Your task to perform on an android device: change alarm snooze length Image 0: 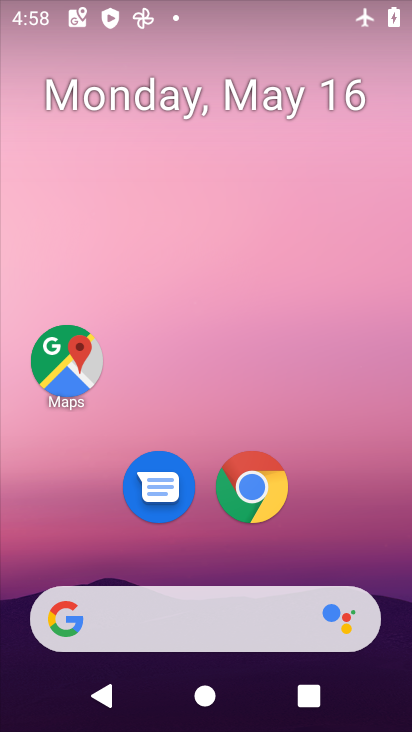
Step 0: drag from (406, 634) to (329, 138)
Your task to perform on an android device: change alarm snooze length Image 1: 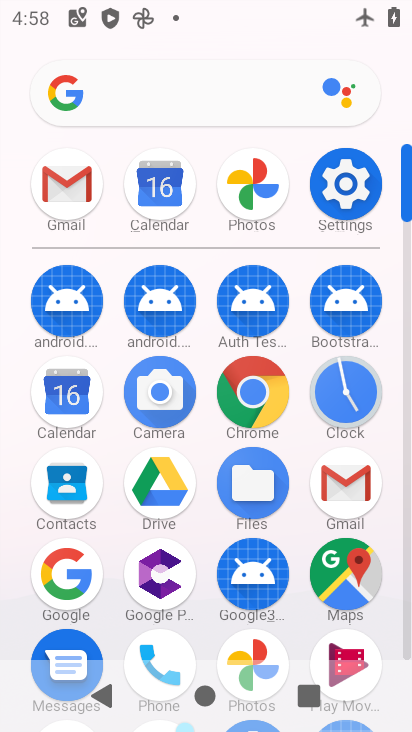
Step 1: click (408, 644)
Your task to perform on an android device: change alarm snooze length Image 2: 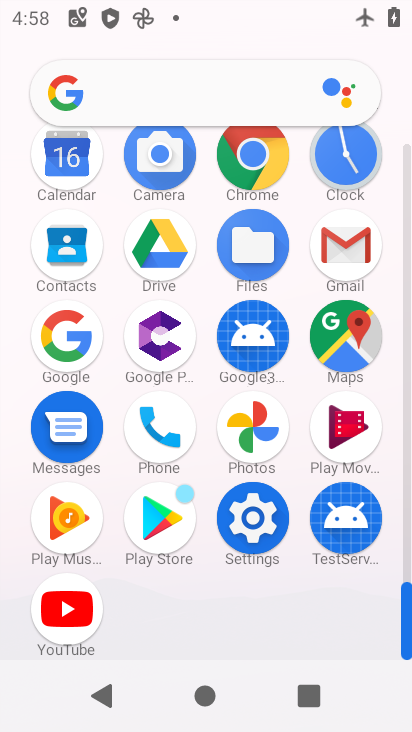
Step 2: click (347, 151)
Your task to perform on an android device: change alarm snooze length Image 3: 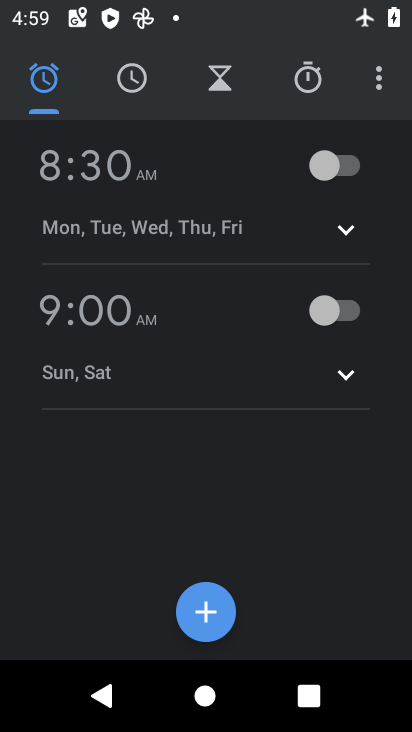
Step 3: click (378, 86)
Your task to perform on an android device: change alarm snooze length Image 4: 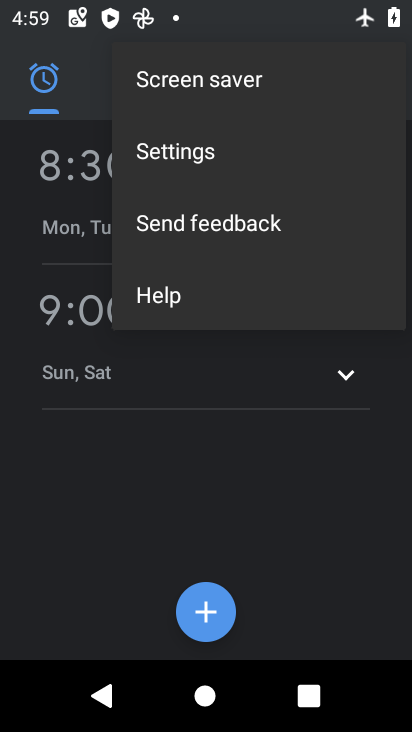
Step 4: click (166, 157)
Your task to perform on an android device: change alarm snooze length Image 5: 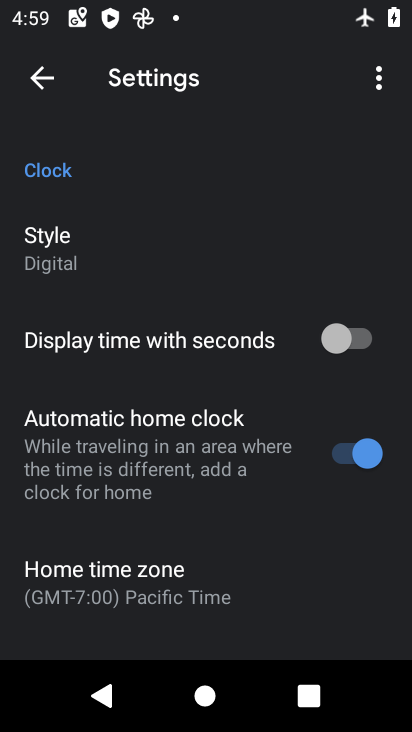
Step 5: drag from (241, 556) to (298, 230)
Your task to perform on an android device: change alarm snooze length Image 6: 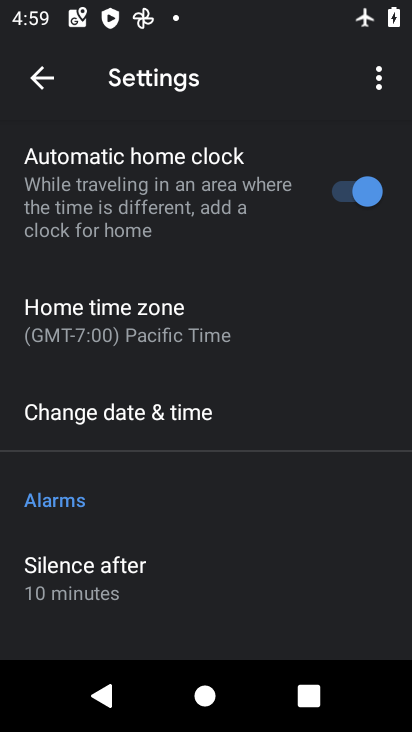
Step 6: drag from (268, 600) to (245, 251)
Your task to perform on an android device: change alarm snooze length Image 7: 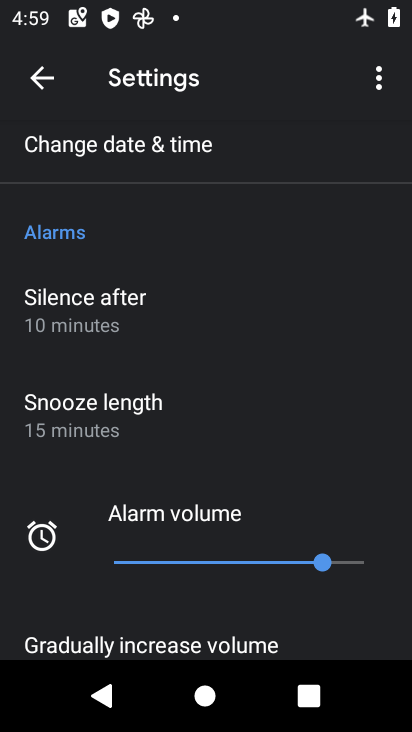
Step 7: click (71, 385)
Your task to perform on an android device: change alarm snooze length Image 8: 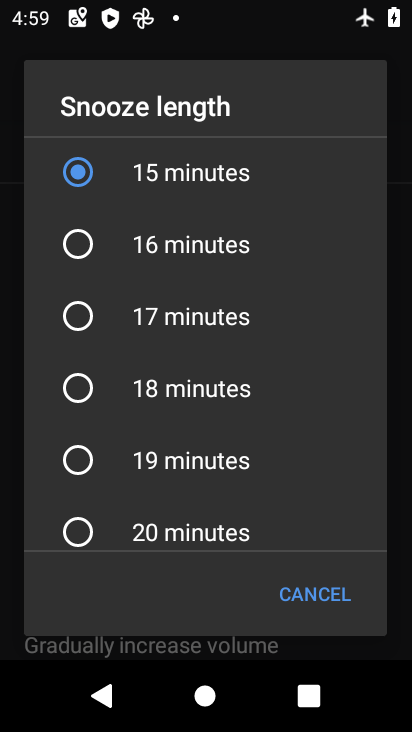
Step 8: drag from (145, 258) to (139, 537)
Your task to perform on an android device: change alarm snooze length Image 9: 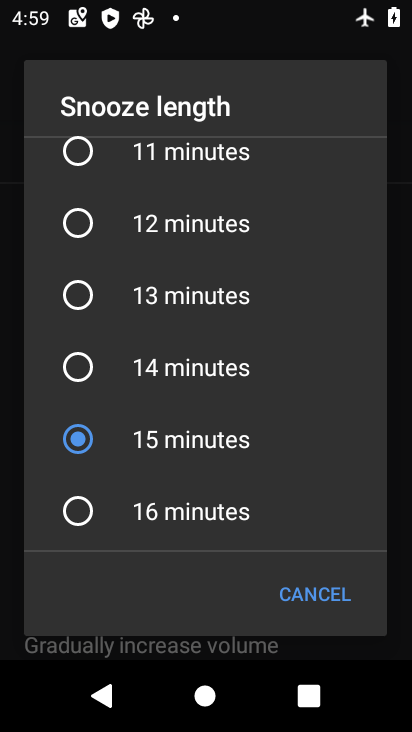
Step 9: drag from (91, 143) to (143, 403)
Your task to perform on an android device: change alarm snooze length Image 10: 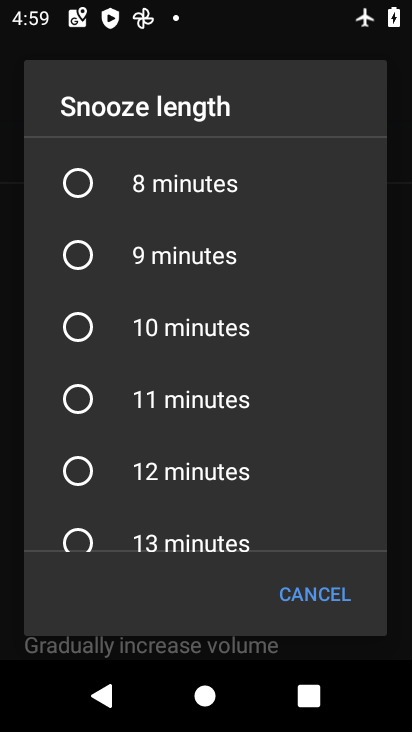
Step 10: click (81, 331)
Your task to perform on an android device: change alarm snooze length Image 11: 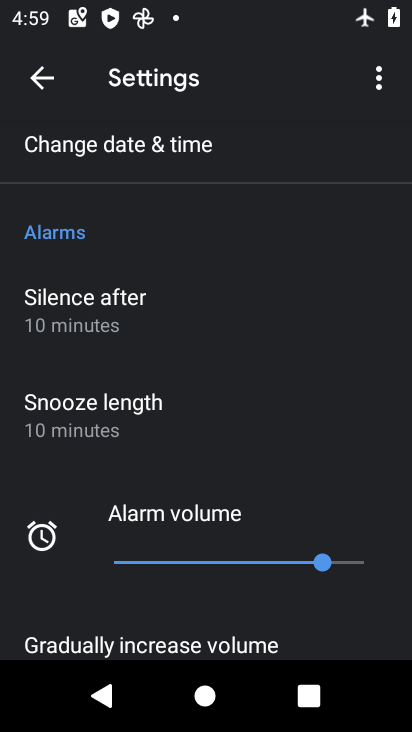
Step 11: task complete